Your task to perform on an android device: read, delete, or share a saved page in the chrome app Image 0: 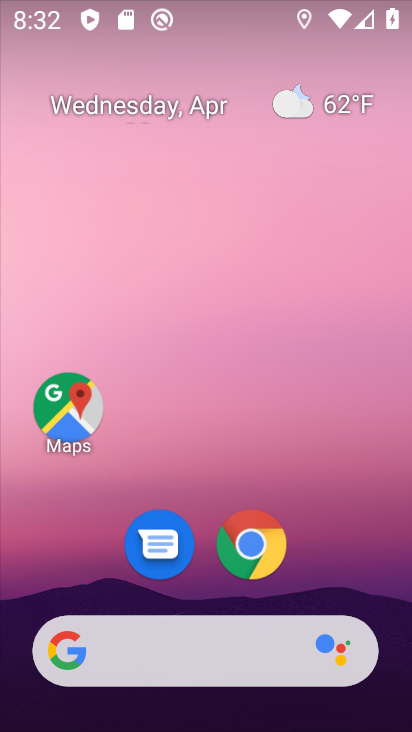
Step 0: click (249, 537)
Your task to perform on an android device: read, delete, or share a saved page in the chrome app Image 1: 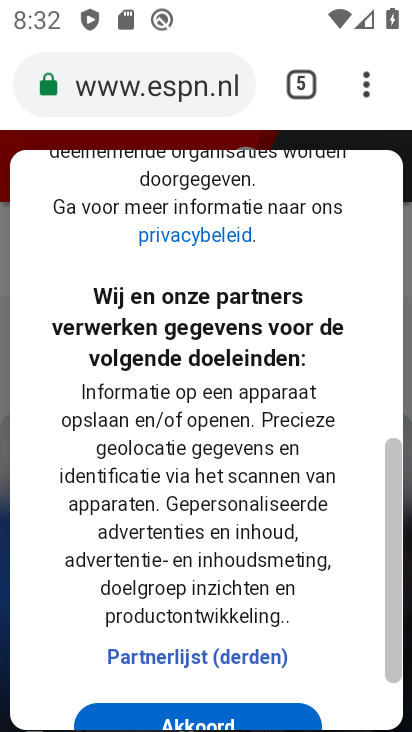
Step 1: drag from (360, 83) to (109, 420)
Your task to perform on an android device: read, delete, or share a saved page in the chrome app Image 2: 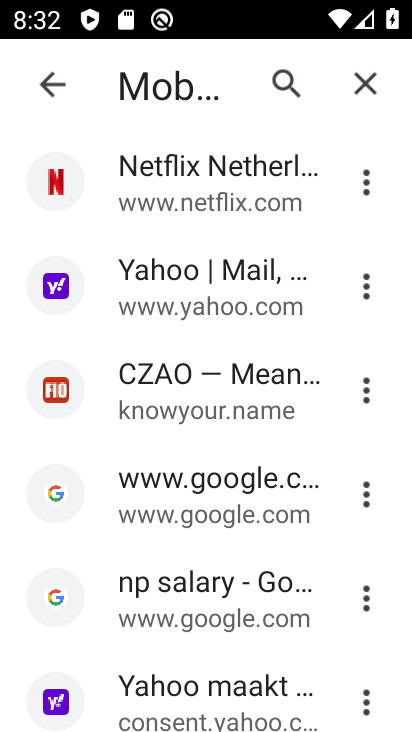
Step 2: click (351, 376)
Your task to perform on an android device: read, delete, or share a saved page in the chrome app Image 3: 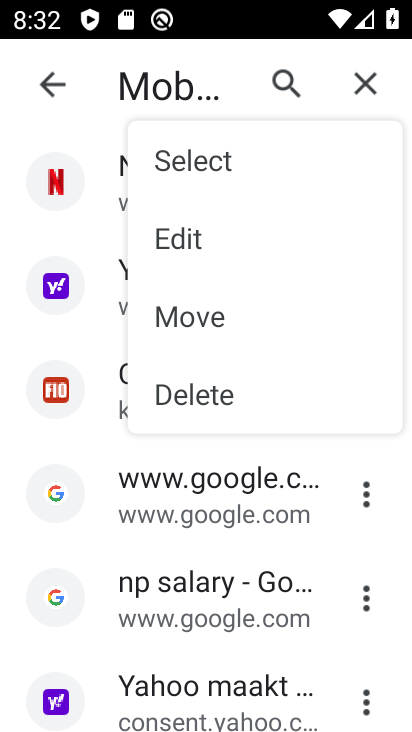
Step 3: click (260, 389)
Your task to perform on an android device: read, delete, or share a saved page in the chrome app Image 4: 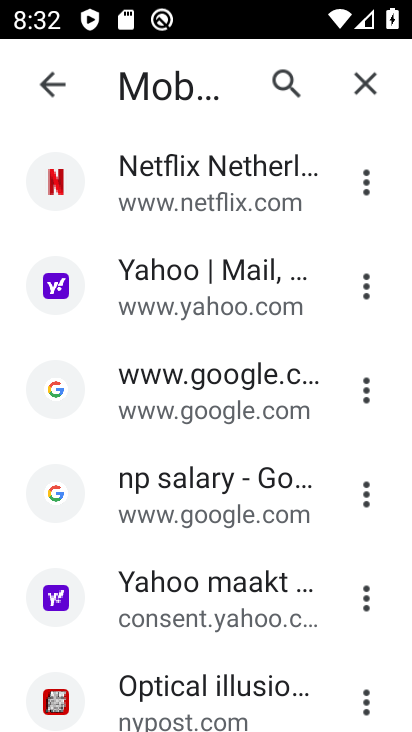
Step 4: task complete